Your task to perform on an android device: clear history in the chrome app Image 0: 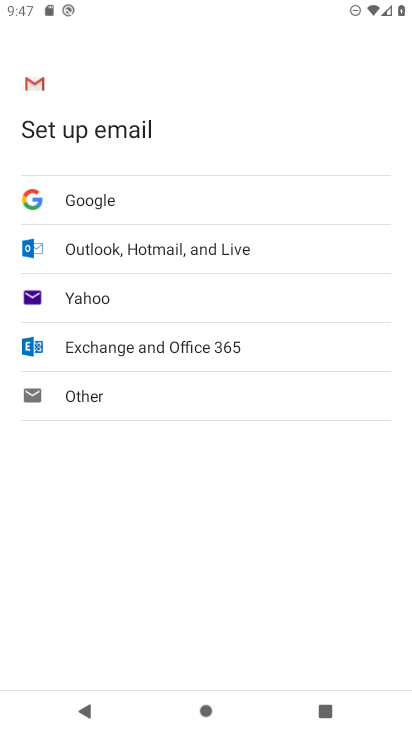
Step 0: press home button
Your task to perform on an android device: clear history in the chrome app Image 1: 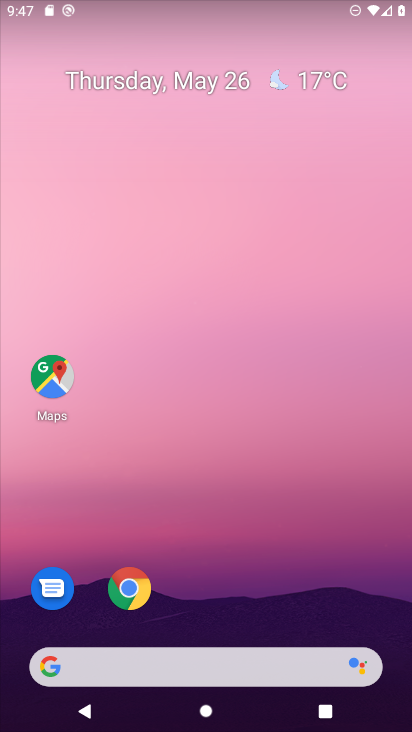
Step 1: click (130, 587)
Your task to perform on an android device: clear history in the chrome app Image 2: 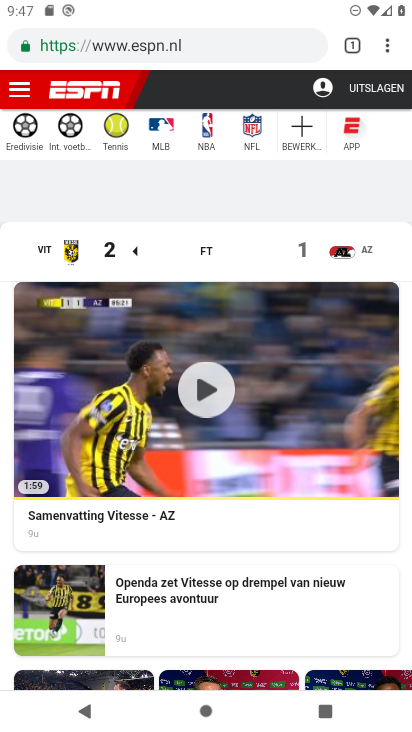
Step 2: click (385, 50)
Your task to perform on an android device: clear history in the chrome app Image 3: 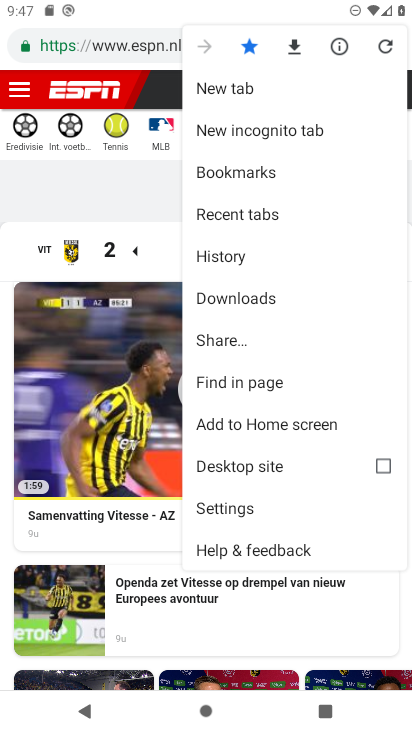
Step 3: click (229, 254)
Your task to perform on an android device: clear history in the chrome app Image 4: 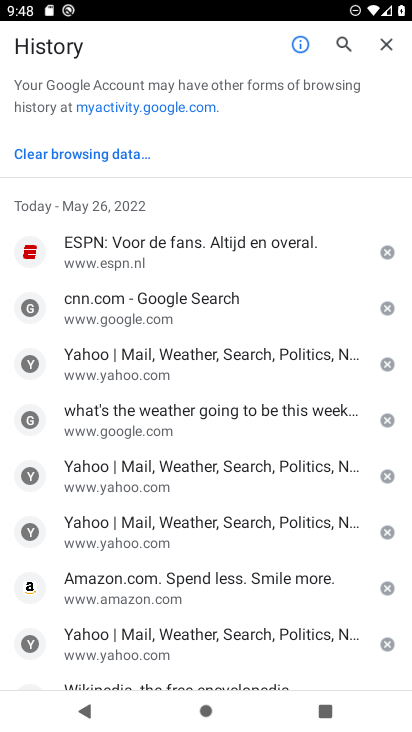
Step 4: click (77, 152)
Your task to perform on an android device: clear history in the chrome app Image 5: 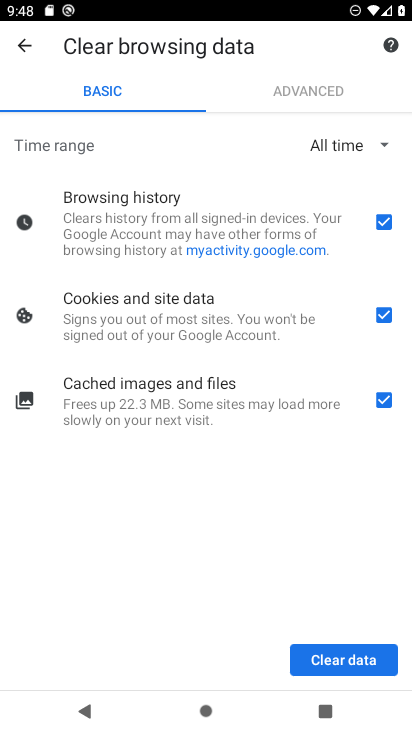
Step 5: click (383, 311)
Your task to perform on an android device: clear history in the chrome app Image 6: 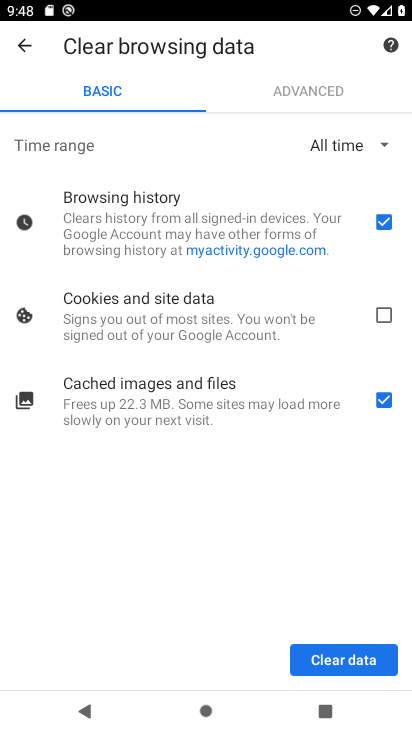
Step 6: click (379, 394)
Your task to perform on an android device: clear history in the chrome app Image 7: 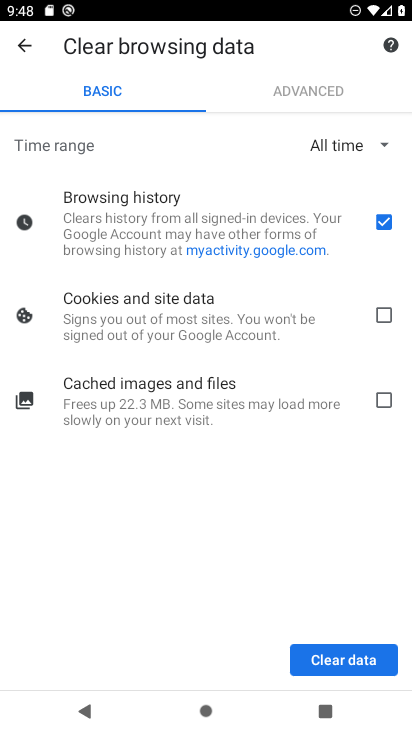
Step 7: click (347, 660)
Your task to perform on an android device: clear history in the chrome app Image 8: 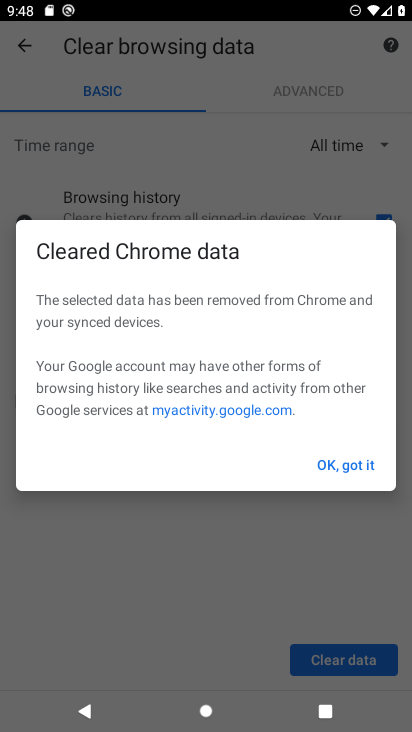
Step 8: click (353, 468)
Your task to perform on an android device: clear history in the chrome app Image 9: 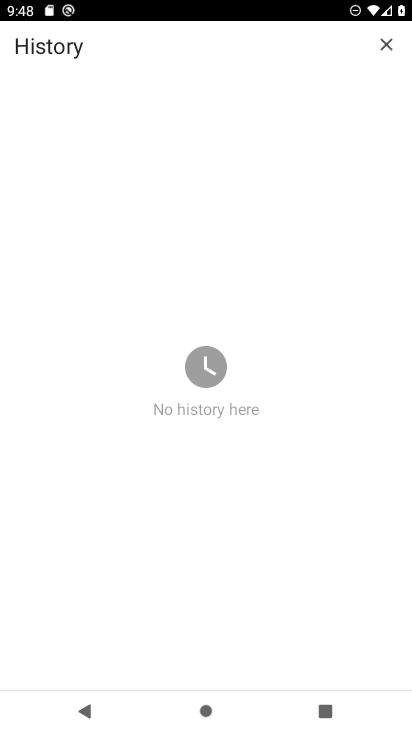
Step 9: task complete